Your task to perform on an android device: add a contact in the contacts app Image 0: 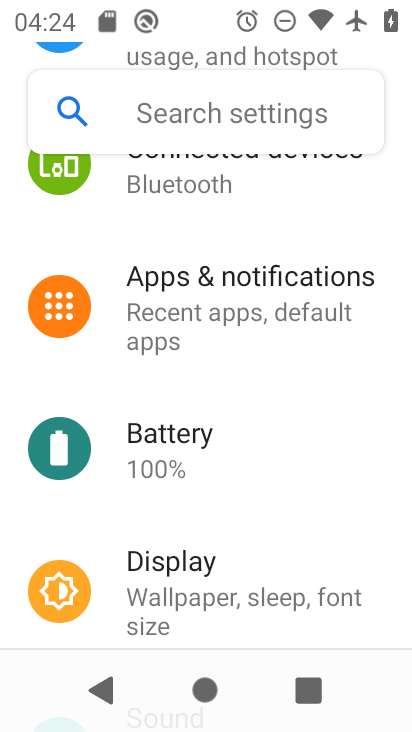
Step 0: press home button
Your task to perform on an android device: add a contact in the contacts app Image 1: 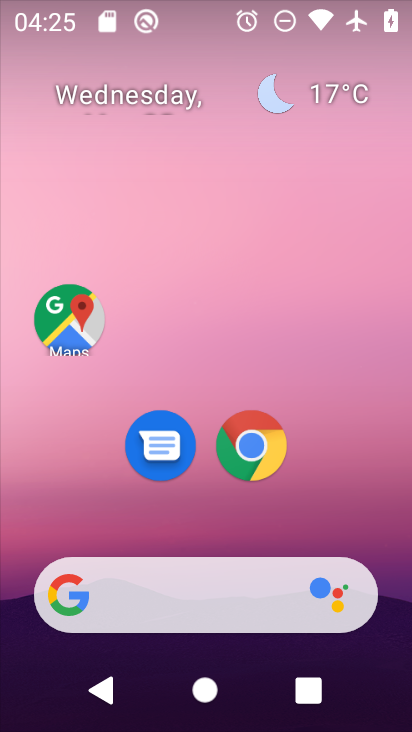
Step 1: drag from (227, 605) to (189, 144)
Your task to perform on an android device: add a contact in the contacts app Image 2: 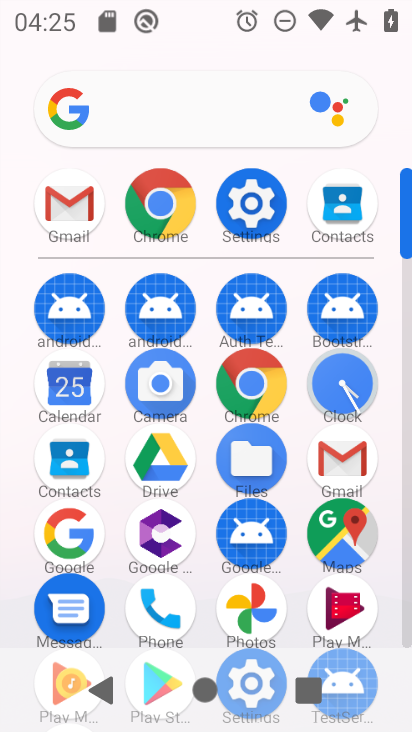
Step 2: click (354, 210)
Your task to perform on an android device: add a contact in the contacts app Image 3: 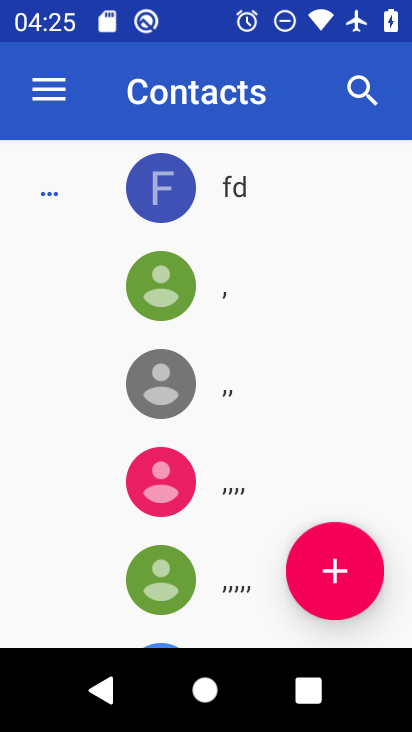
Step 3: click (316, 586)
Your task to perform on an android device: add a contact in the contacts app Image 4: 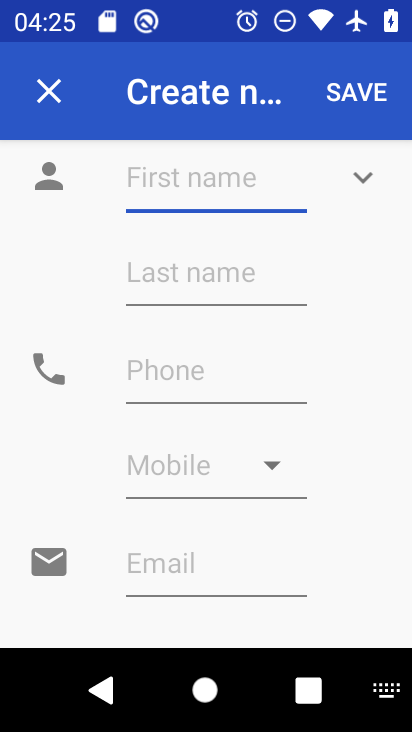
Step 4: type "cvbc"
Your task to perform on an android device: add a contact in the contacts app Image 5: 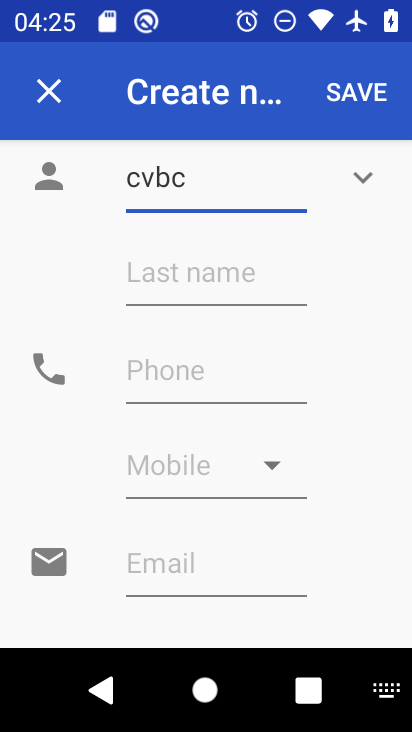
Step 5: click (161, 382)
Your task to perform on an android device: add a contact in the contacts app Image 6: 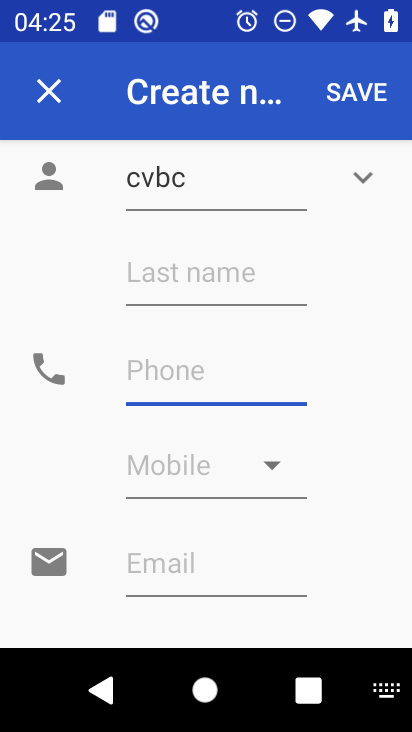
Step 6: type "67567"
Your task to perform on an android device: add a contact in the contacts app Image 7: 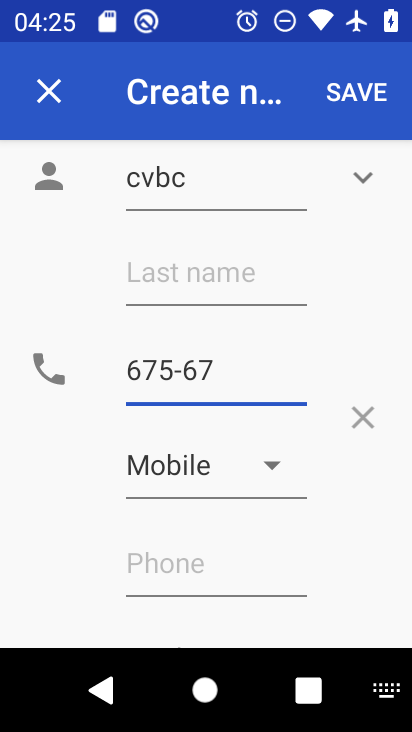
Step 7: click (378, 107)
Your task to perform on an android device: add a contact in the contacts app Image 8: 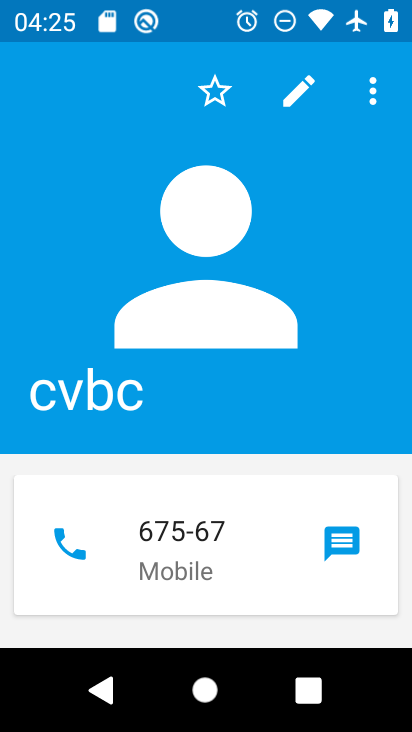
Step 8: task complete